Your task to perform on an android device: What's the weather going to be this weekend? Image 0: 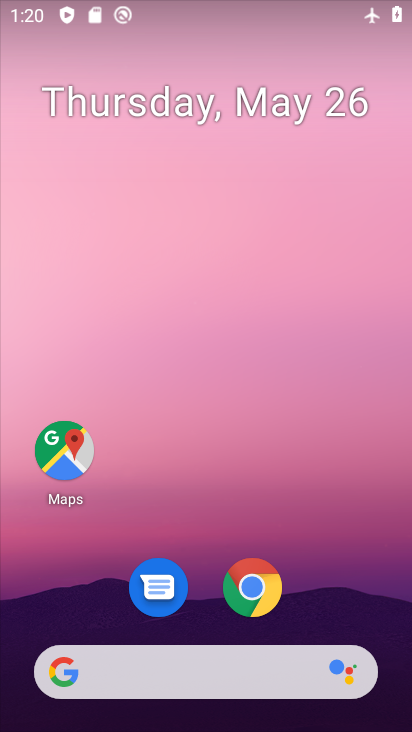
Step 0: drag from (297, 571) to (236, 104)
Your task to perform on an android device: What's the weather going to be this weekend? Image 1: 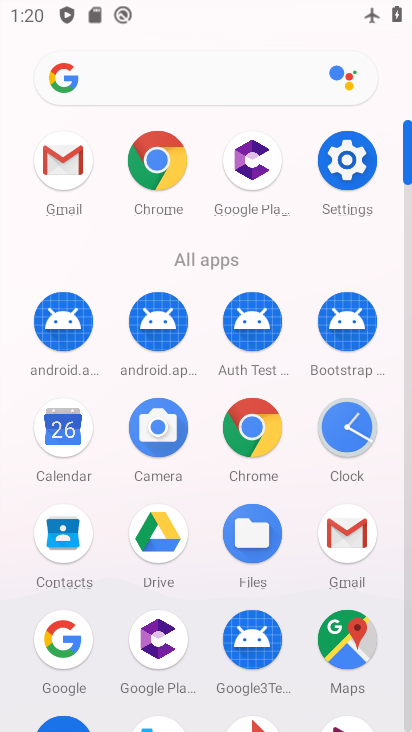
Step 1: drag from (0, 569) to (7, 240)
Your task to perform on an android device: What's the weather going to be this weekend? Image 2: 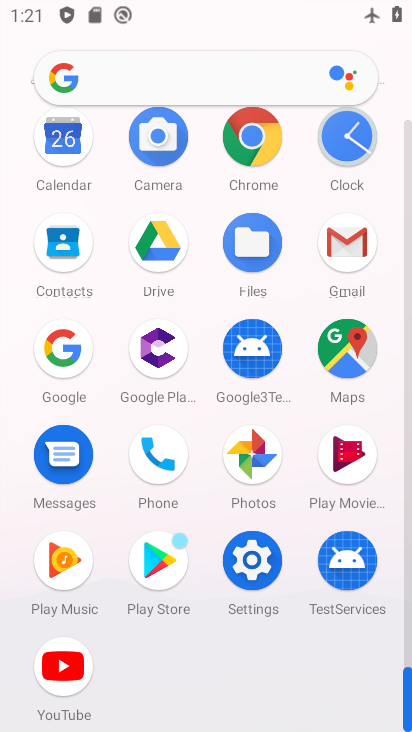
Step 2: drag from (19, 541) to (3, 234)
Your task to perform on an android device: What's the weather going to be this weekend? Image 3: 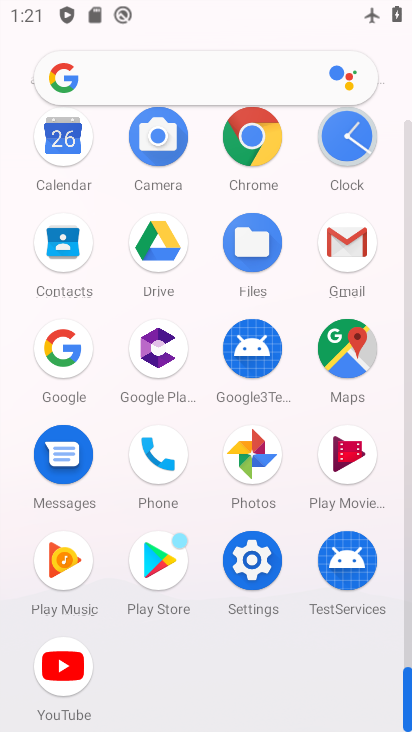
Step 3: click (255, 133)
Your task to perform on an android device: What's the weather going to be this weekend? Image 4: 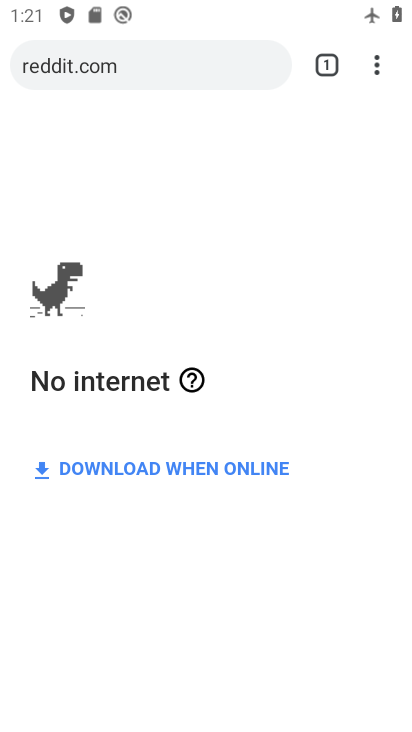
Step 4: drag from (288, 1) to (328, 308)
Your task to perform on an android device: What's the weather going to be this weekend? Image 5: 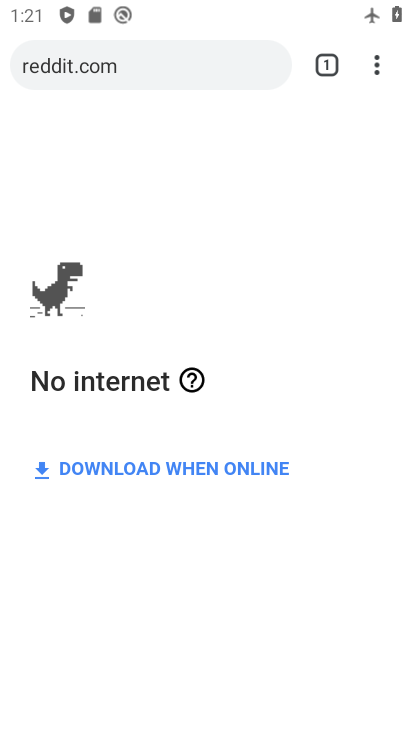
Step 5: drag from (165, 11) to (185, 379)
Your task to perform on an android device: What's the weather going to be this weekend? Image 6: 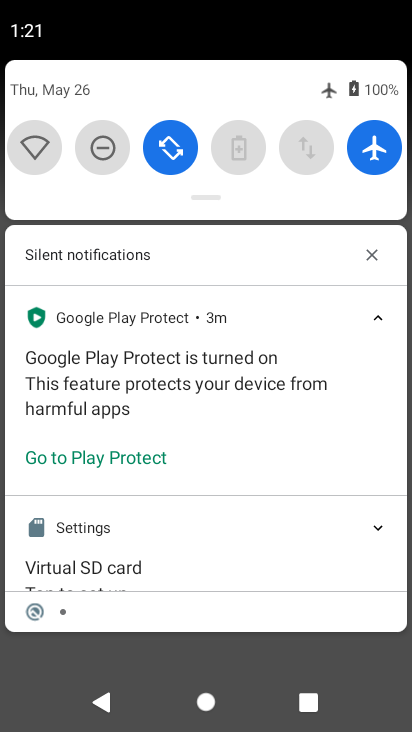
Step 6: click (34, 137)
Your task to perform on an android device: What's the weather going to be this weekend? Image 7: 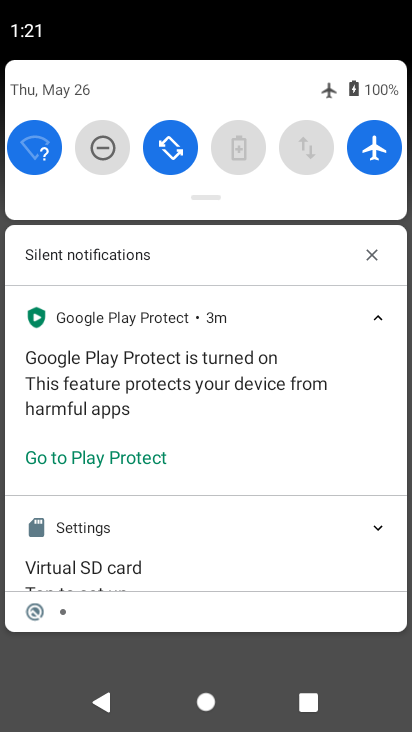
Step 7: drag from (376, 653) to (279, 151)
Your task to perform on an android device: What's the weather going to be this weekend? Image 8: 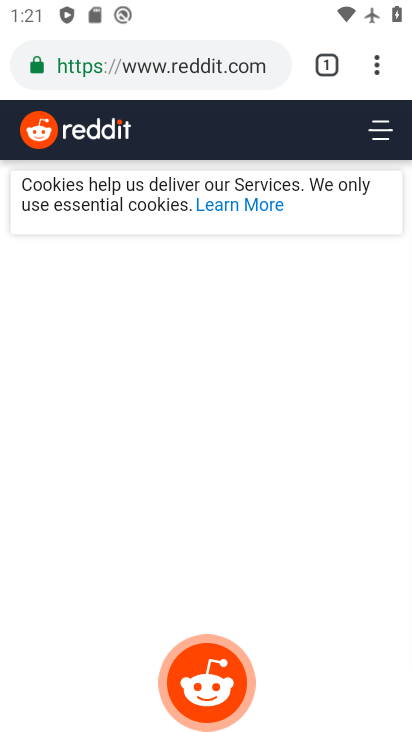
Step 8: click (143, 58)
Your task to perform on an android device: What's the weather going to be this weekend? Image 9: 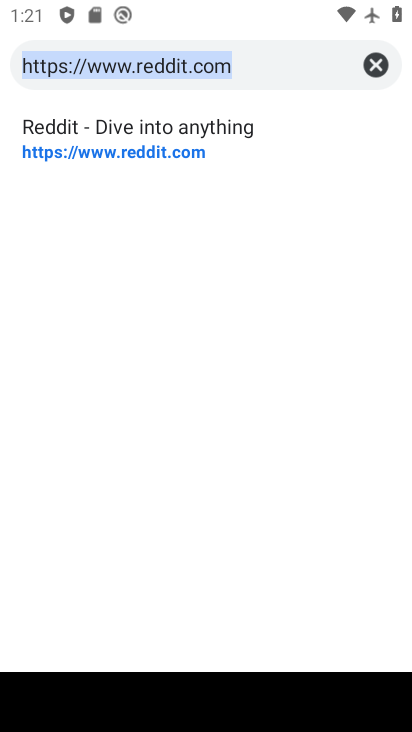
Step 9: click (372, 66)
Your task to perform on an android device: What's the weather going to be this weekend? Image 10: 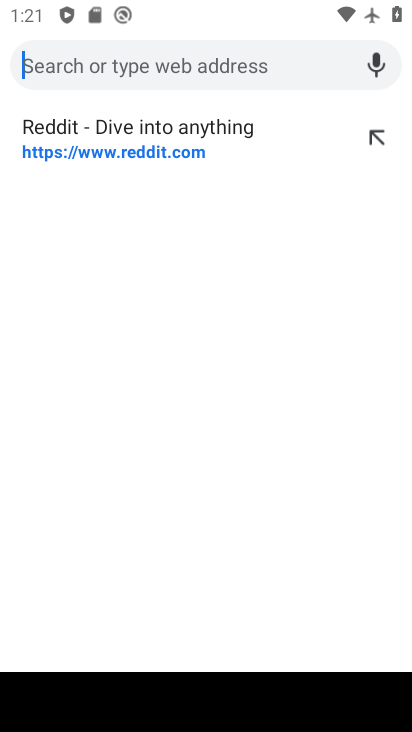
Step 10: type "What's the weather going to be this weekend?"
Your task to perform on an android device: What's the weather going to be this weekend? Image 11: 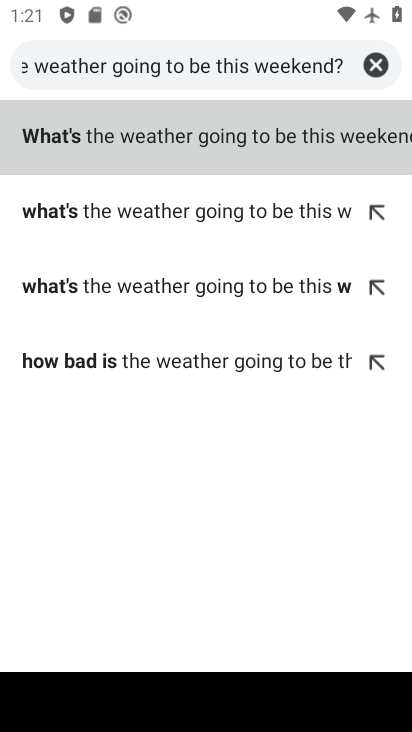
Step 11: click (216, 132)
Your task to perform on an android device: What's the weather going to be this weekend? Image 12: 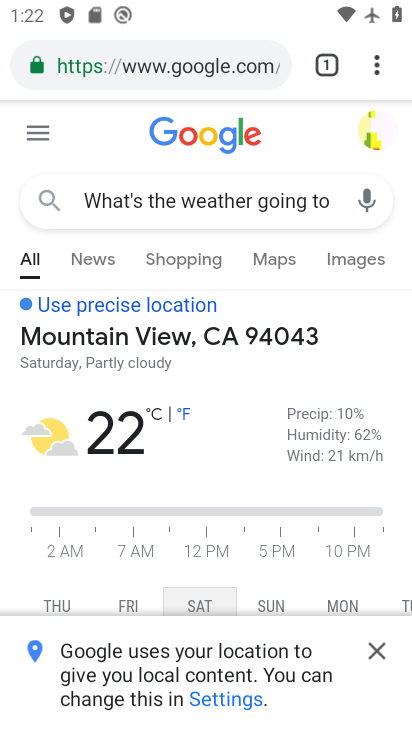
Step 12: task complete